Your task to perform on an android device: What's the top post on reddit today? Image 0: 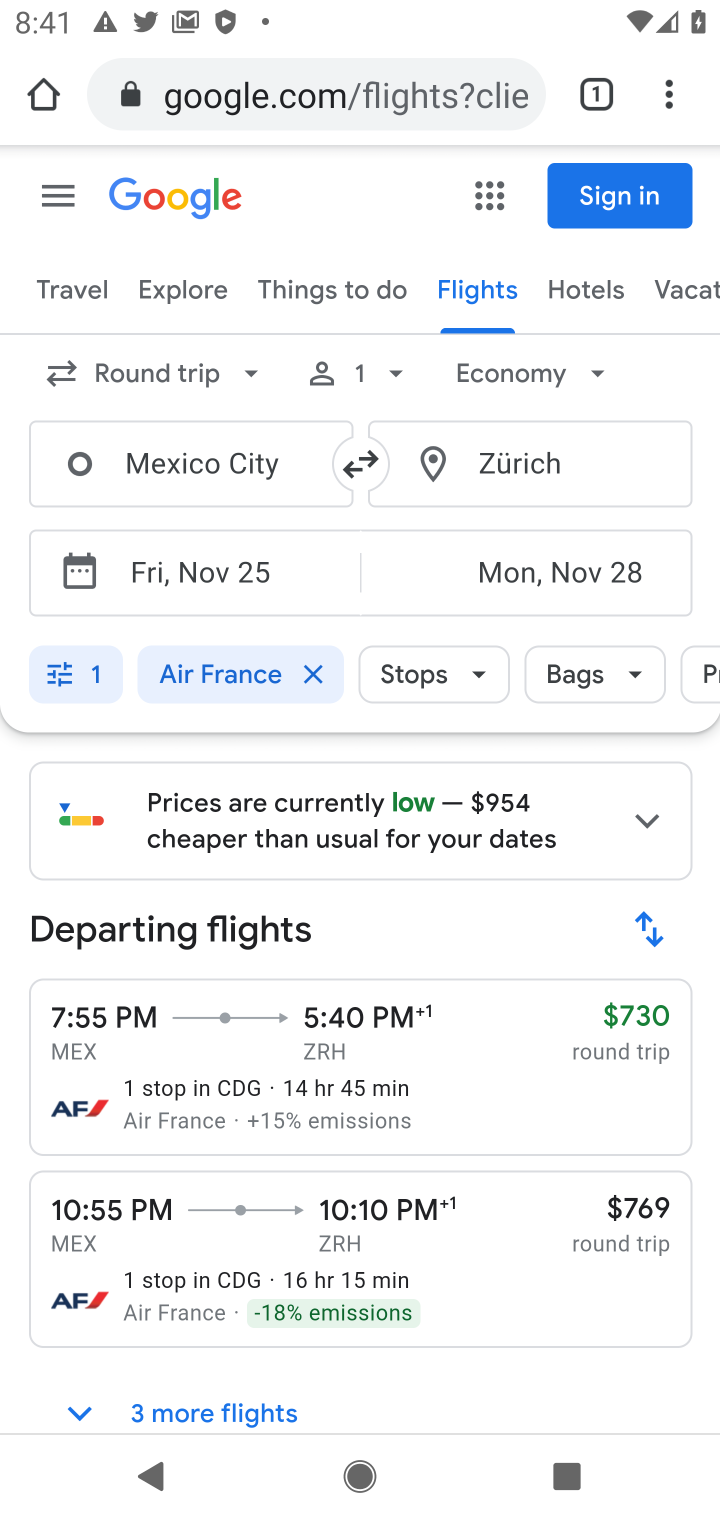
Step 0: click (441, 89)
Your task to perform on an android device: What's the top post on reddit today? Image 1: 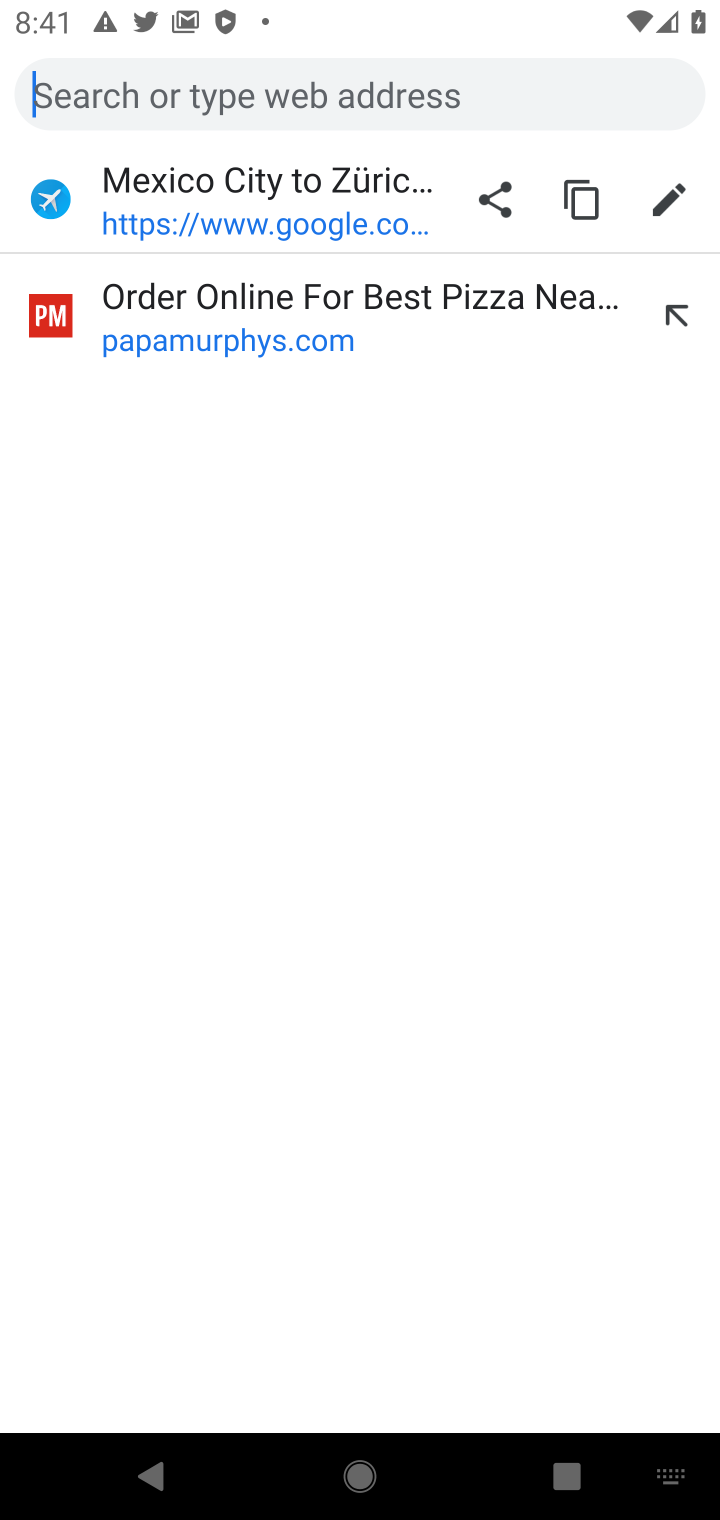
Step 1: type "top post on reddit today "
Your task to perform on an android device: What's the top post on reddit today? Image 2: 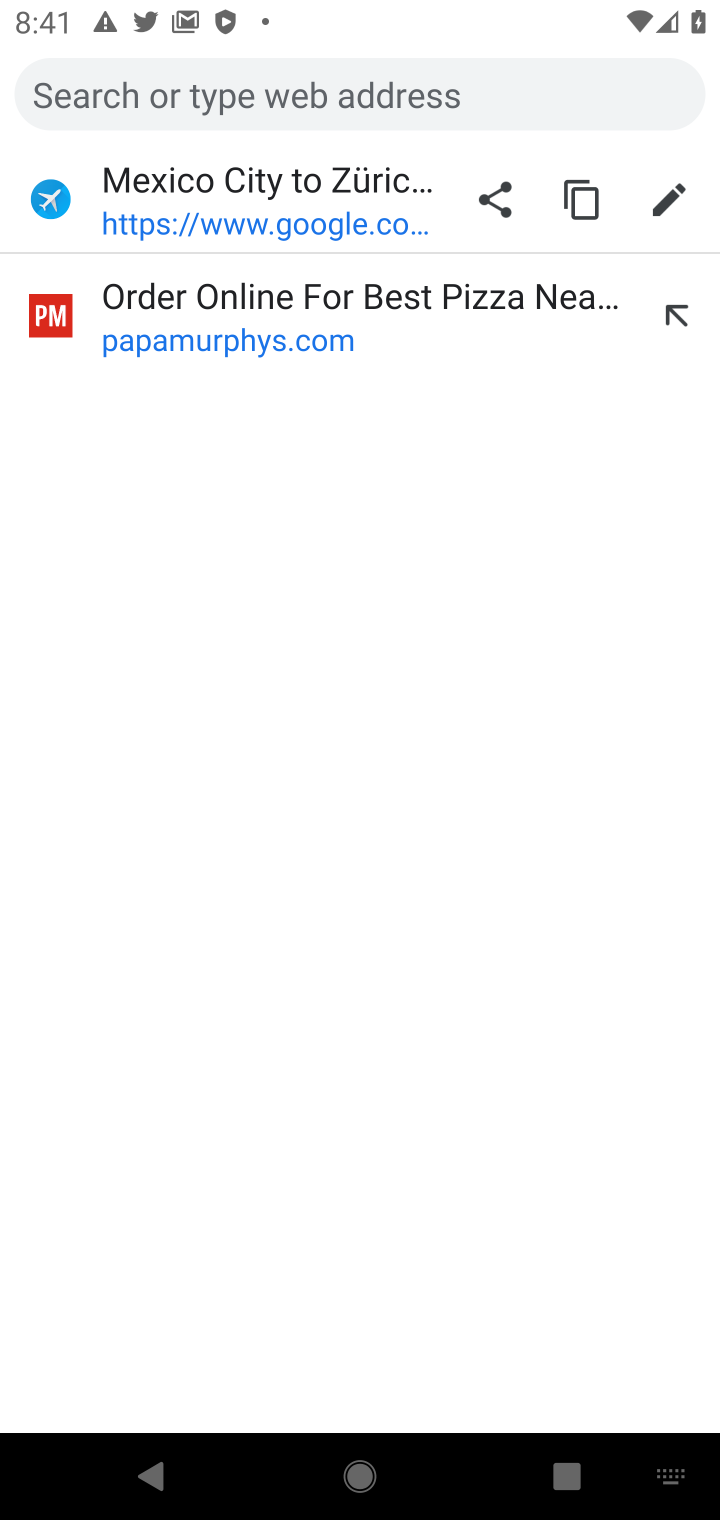
Step 2: click (332, 83)
Your task to perform on an android device: What's the top post on reddit today? Image 3: 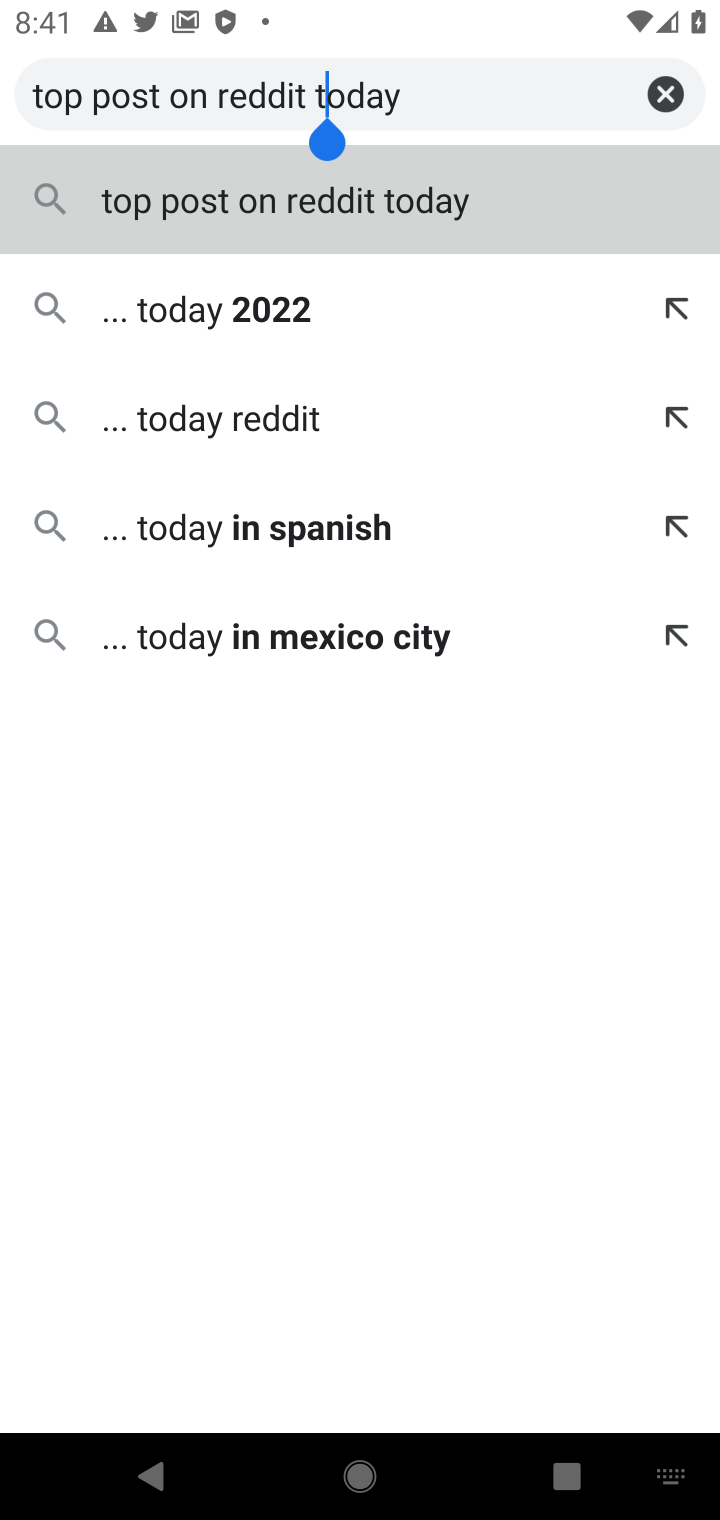
Step 3: click (323, 207)
Your task to perform on an android device: What's the top post on reddit today? Image 4: 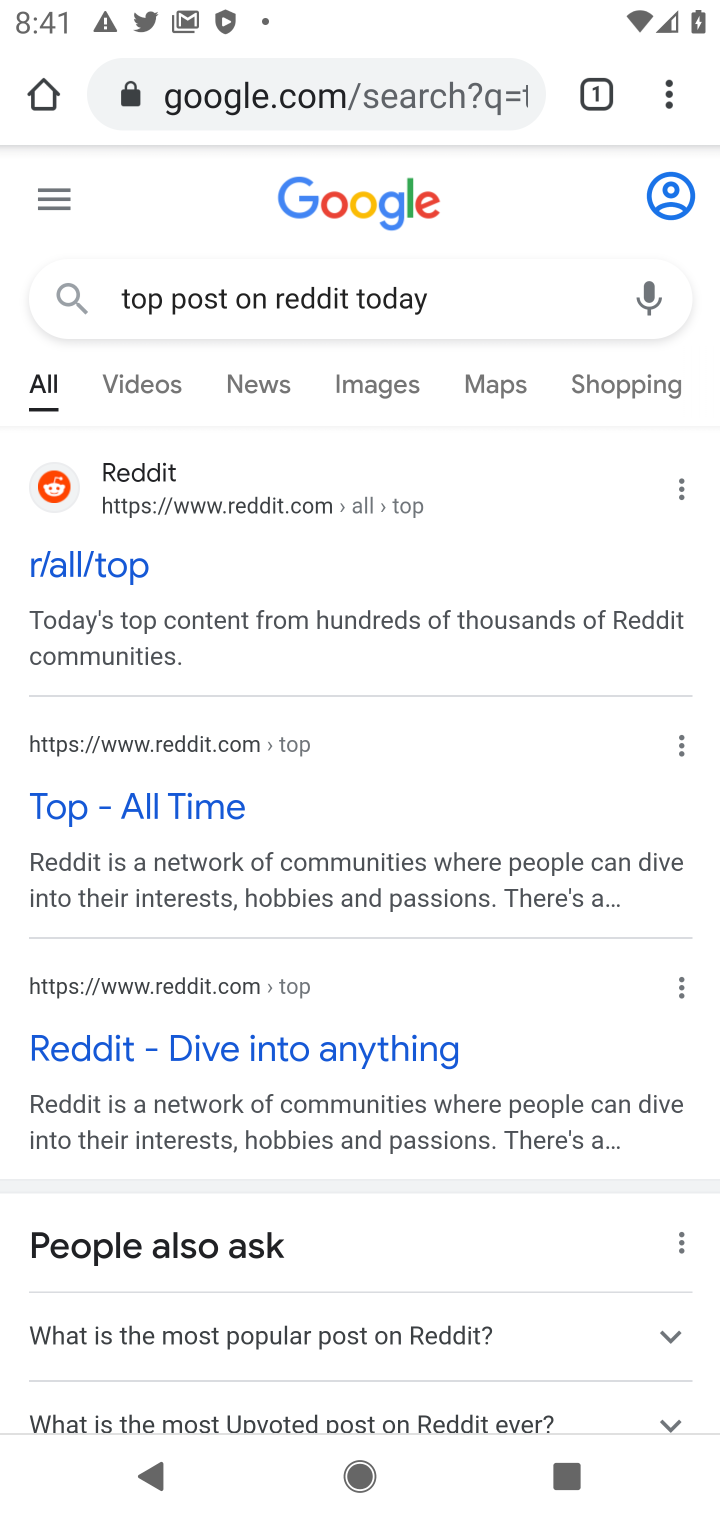
Step 4: click (272, 1051)
Your task to perform on an android device: What's the top post on reddit today? Image 5: 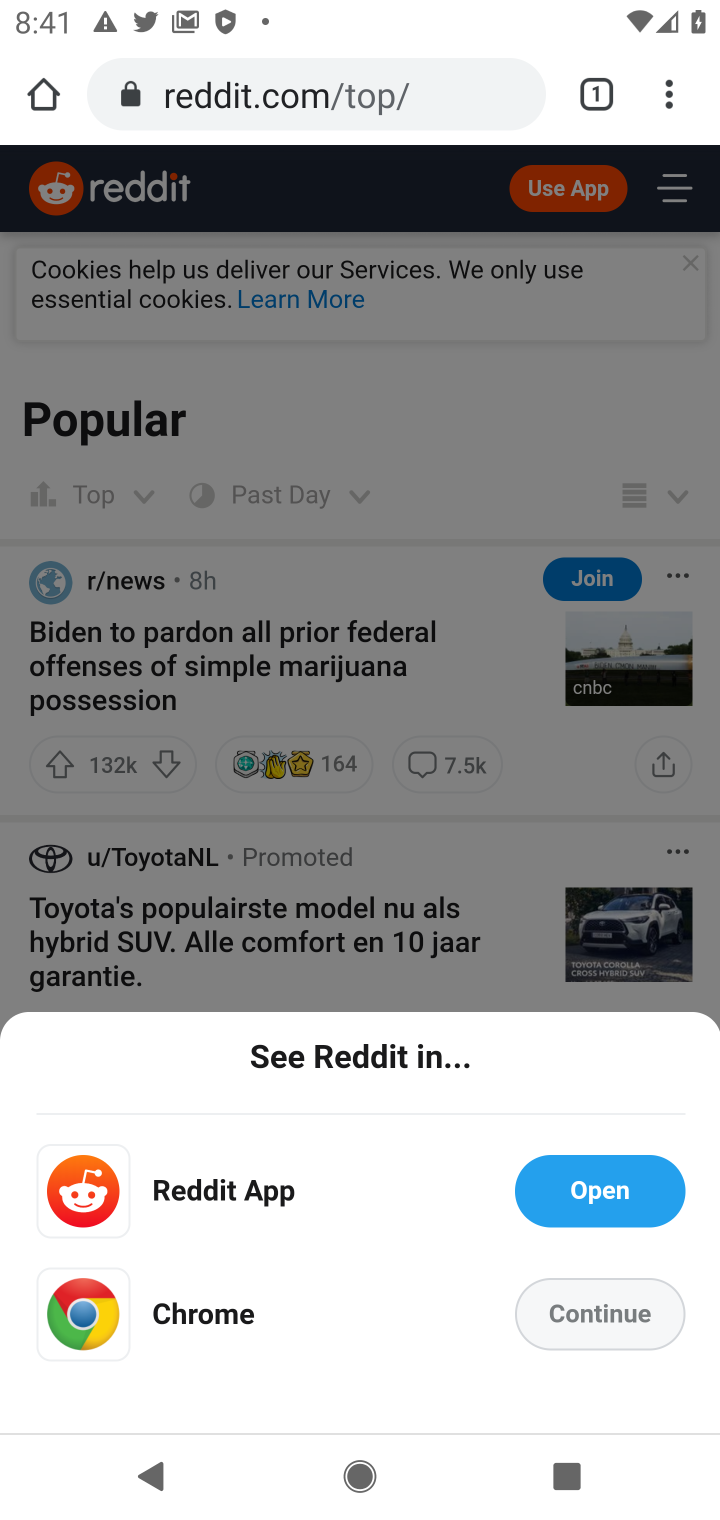
Step 5: click (575, 1198)
Your task to perform on an android device: What's the top post on reddit today? Image 6: 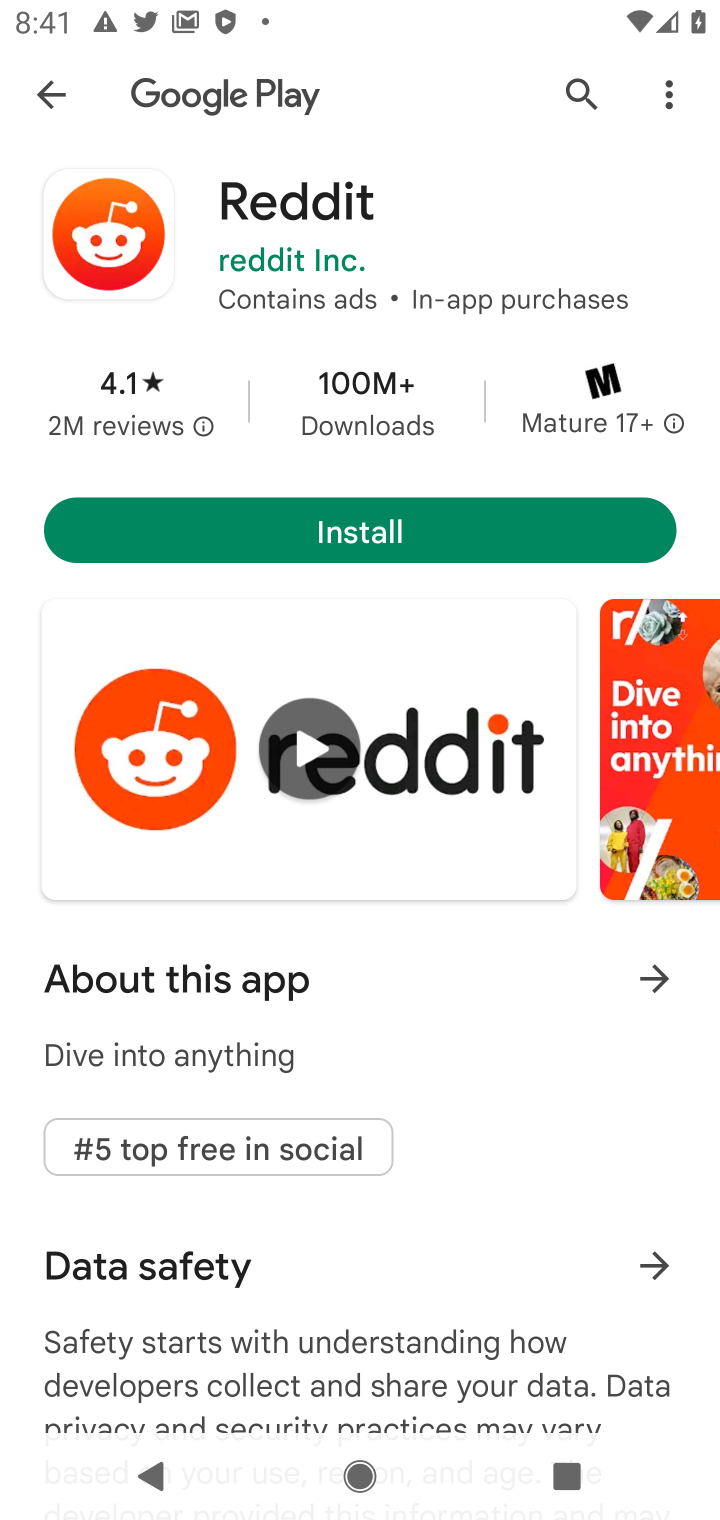
Step 6: click (374, 528)
Your task to perform on an android device: What's the top post on reddit today? Image 7: 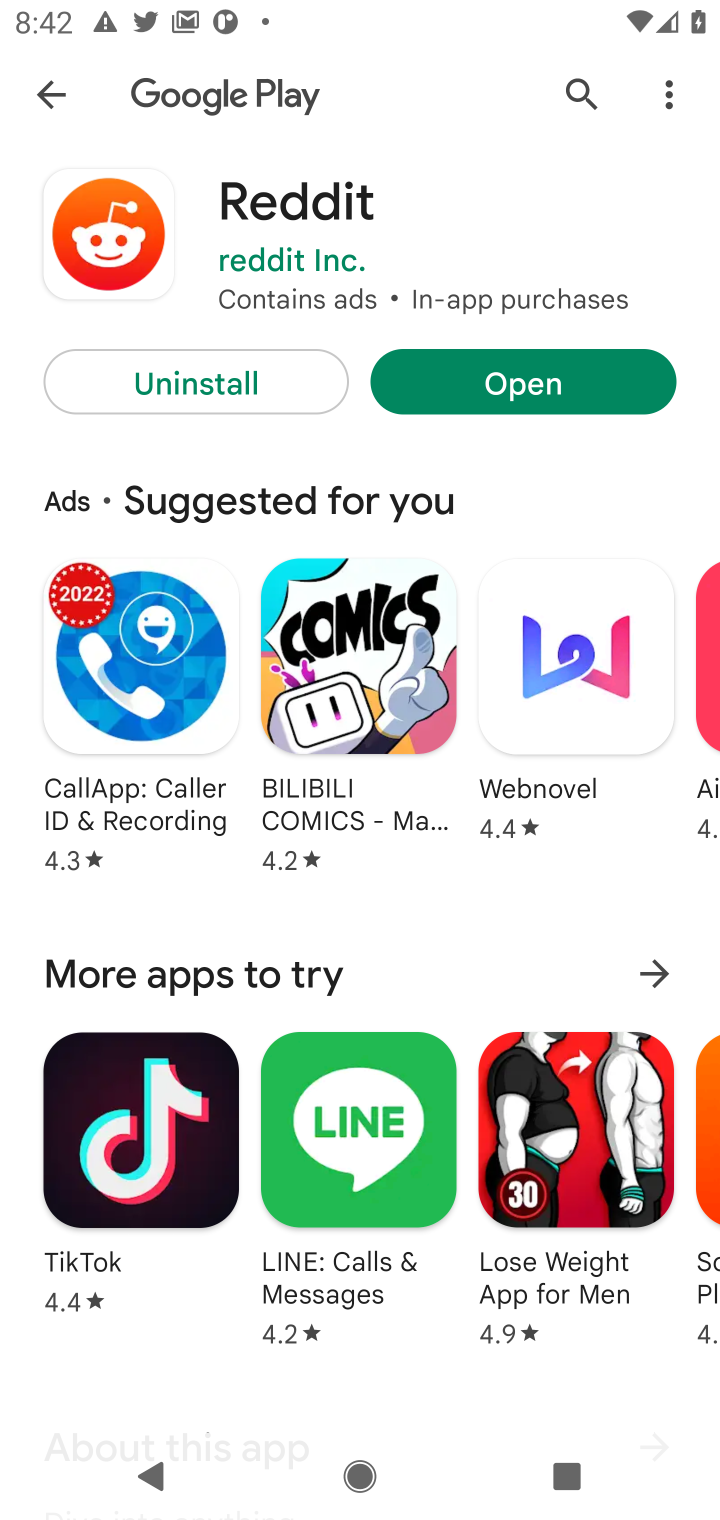
Step 7: click (518, 376)
Your task to perform on an android device: What's the top post on reddit today? Image 8: 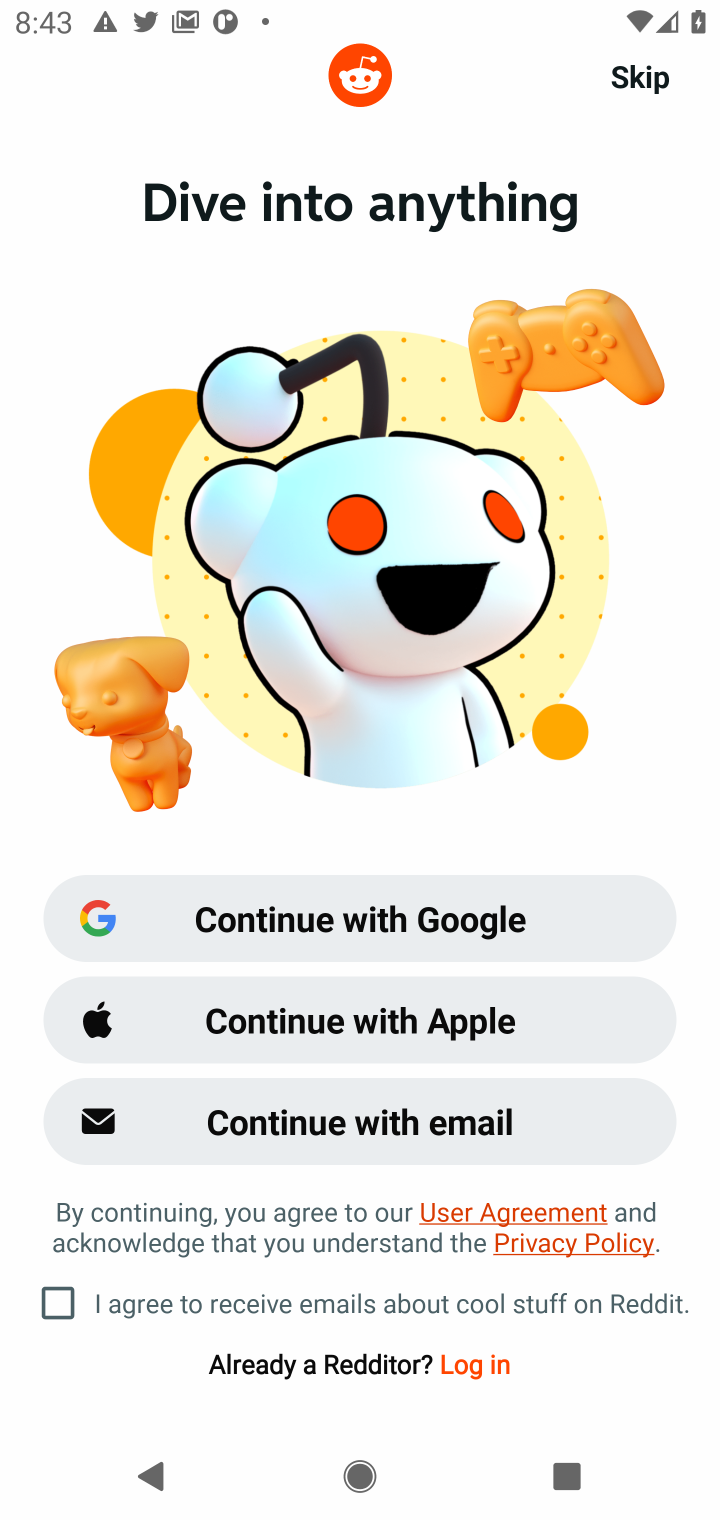
Step 8: click (340, 923)
Your task to perform on an android device: What's the top post on reddit today? Image 9: 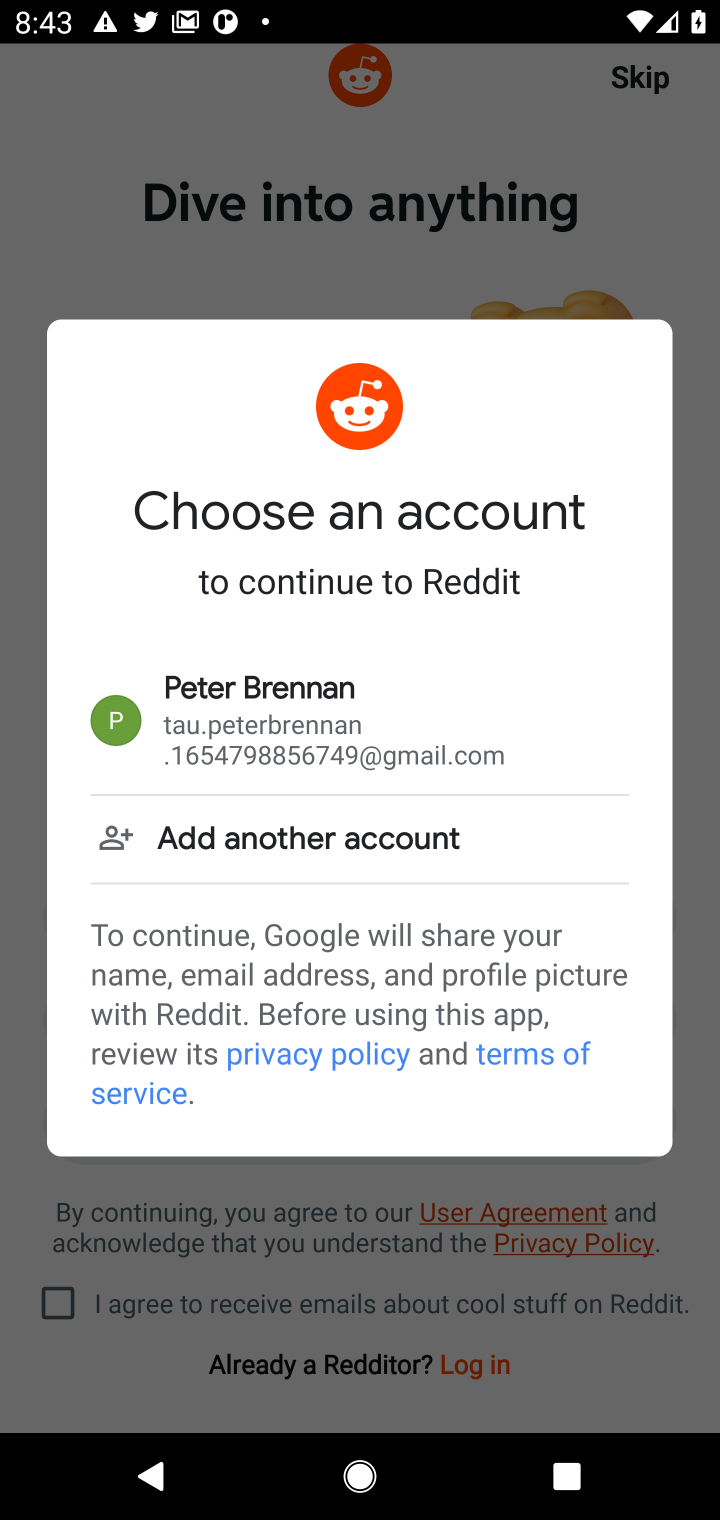
Step 9: task complete